Your task to perform on an android device: Open Chrome and go to settings Image 0: 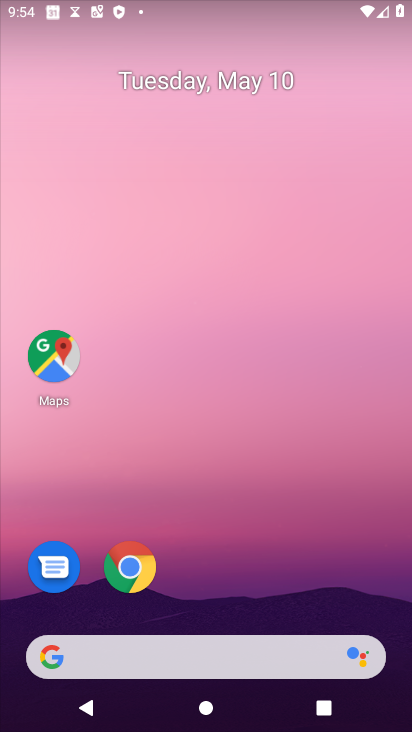
Step 0: click (125, 570)
Your task to perform on an android device: Open Chrome and go to settings Image 1: 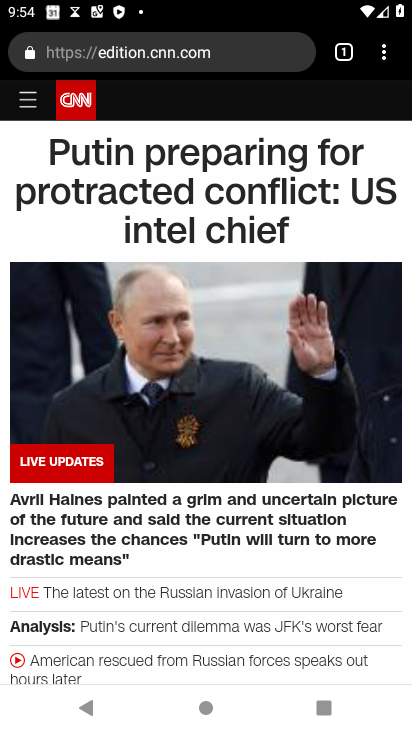
Step 1: click (375, 50)
Your task to perform on an android device: Open Chrome and go to settings Image 2: 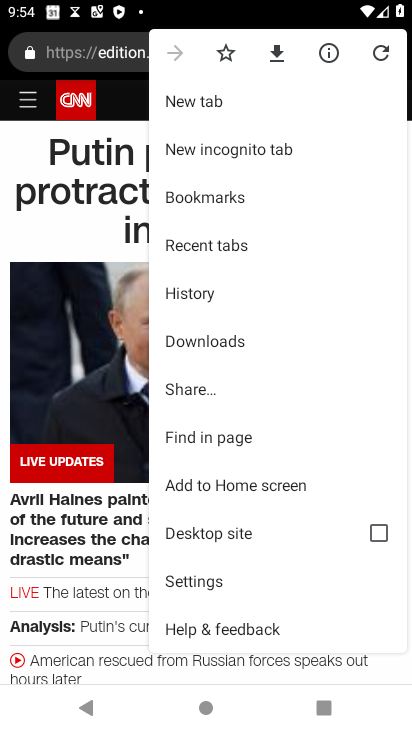
Step 2: click (230, 575)
Your task to perform on an android device: Open Chrome and go to settings Image 3: 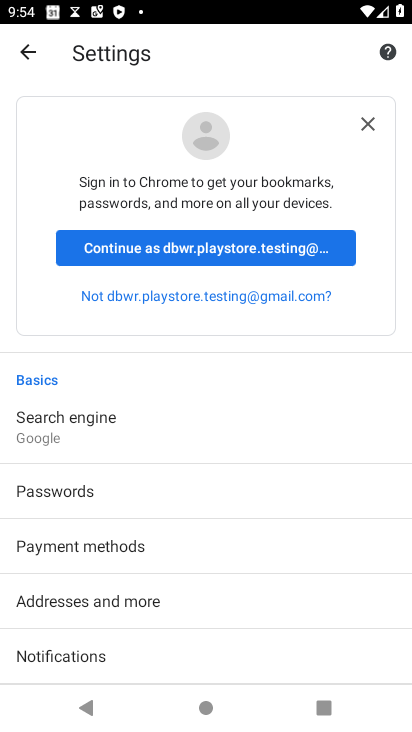
Step 3: task complete